Your task to perform on an android device: Search for Mexican restaurants on Maps Image 0: 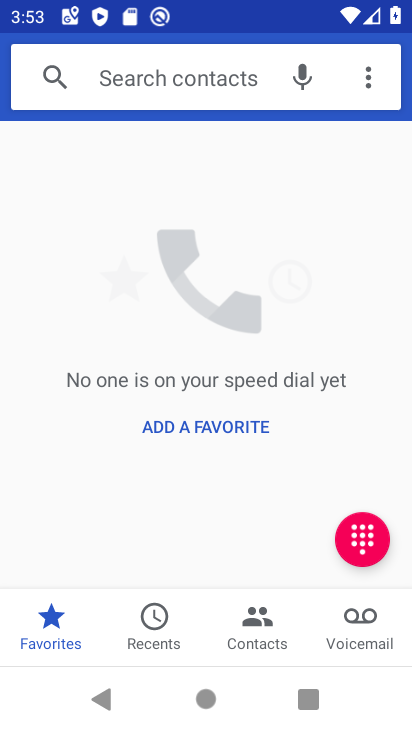
Step 0: press home button
Your task to perform on an android device: Search for Mexican restaurants on Maps Image 1: 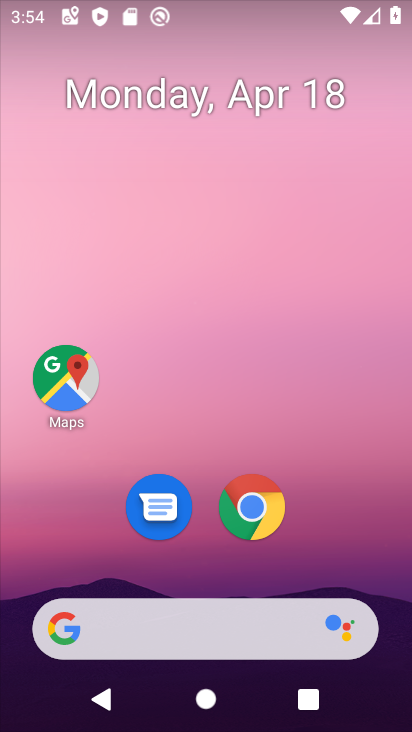
Step 1: click (68, 374)
Your task to perform on an android device: Search for Mexican restaurants on Maps Image 2: 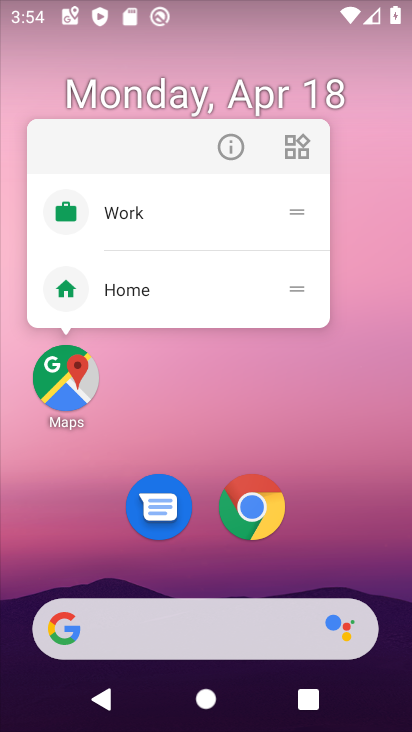
Step 2: click (68, 374)
Your task to perform on an android device: Search for Mexican restaurants on Maps Image 3: 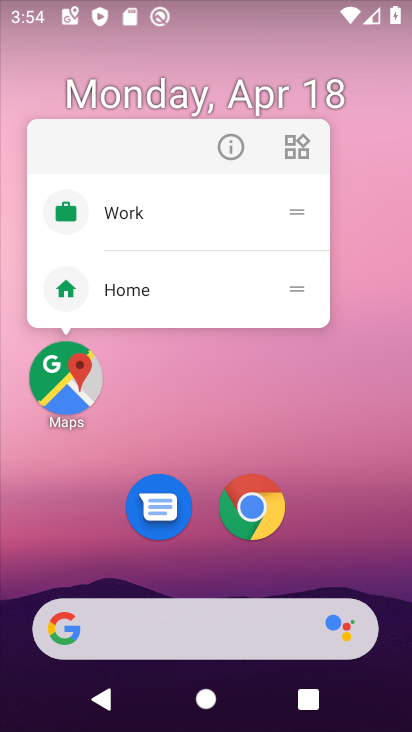
Step 3: click (71, 384)
Your task to perform on an android device: Search for Mexican restaurants on Maps Image 4: 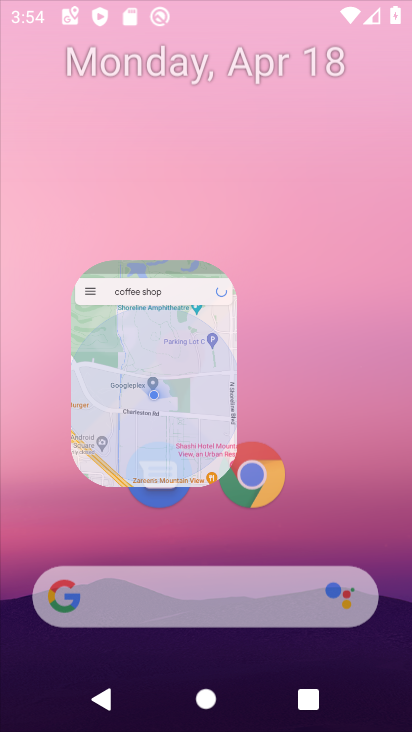
Step 4: click (69, 382)
Your task to perform on an android device: Search for Mexican restaurants on Maps Image 5: 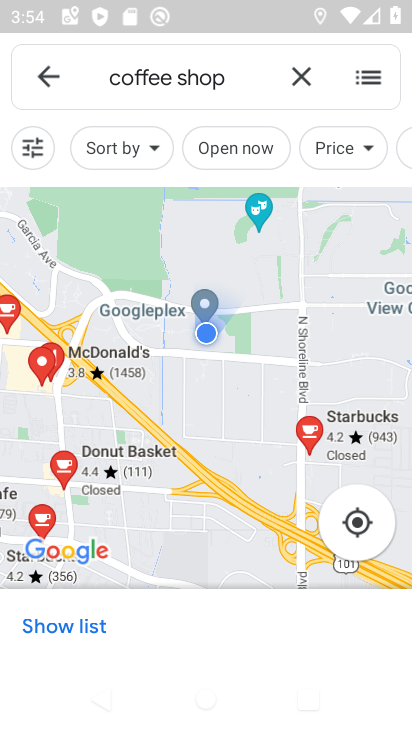
Step 5: click (300, 76)
Your task to perform on an android device: Search for Mexican restaurants on Maps Image 6: 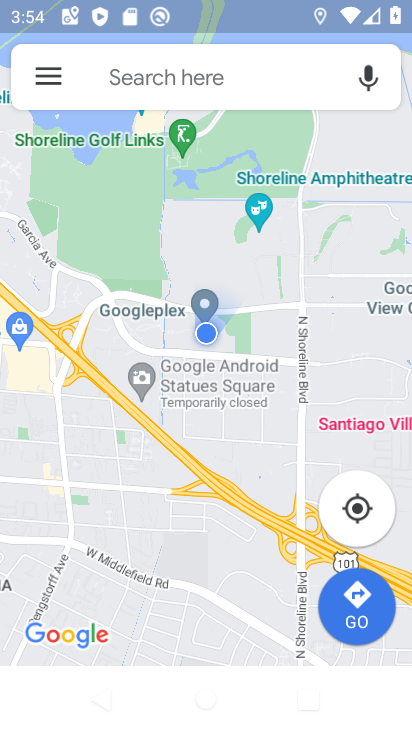
Step 6: click (300, 76)
Your task to perform on an android device: Search for Mexican restaurants on Maps Image 7: 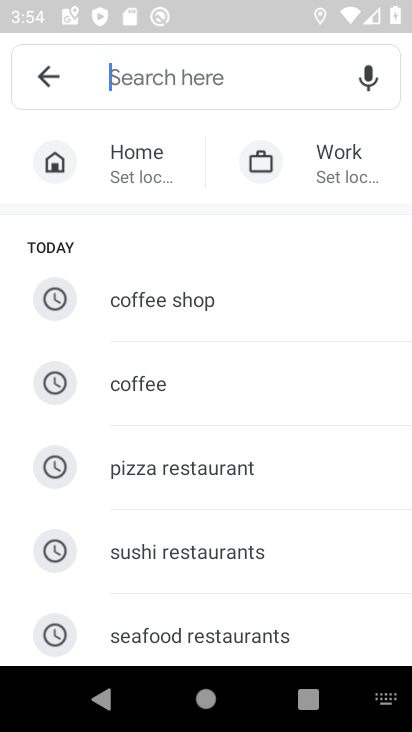
Step 7: type "mexican "
Your task to perform on an android device: Search for Mexican restaurants on Maps Image 8: 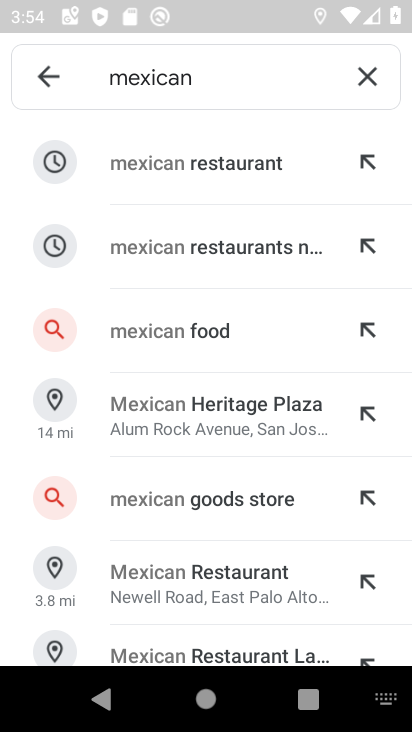
Step 8: click (244, 152)
Your task to perform on an android device: Search for Mexican restaurants on Maps Image 9: 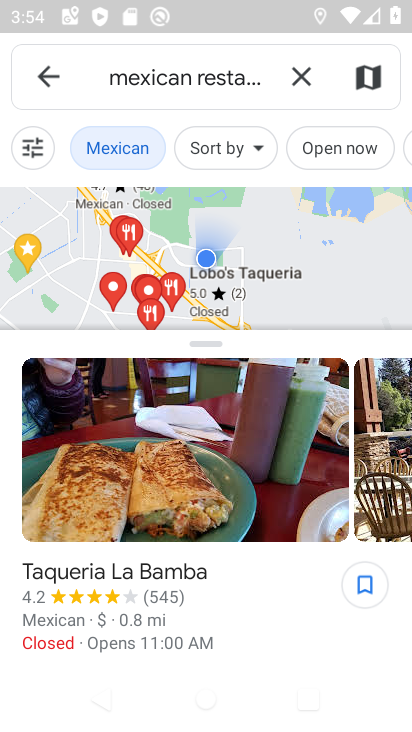
Step 9: task complete